Your task to perform on an android device: open sync settings in chrome Image 0: 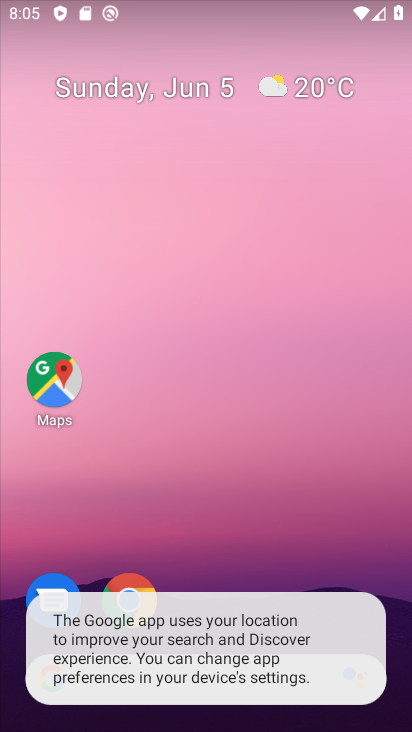
Step 0: press back button
Your task to perform on an android device: open sync settings in chrome Image 1: 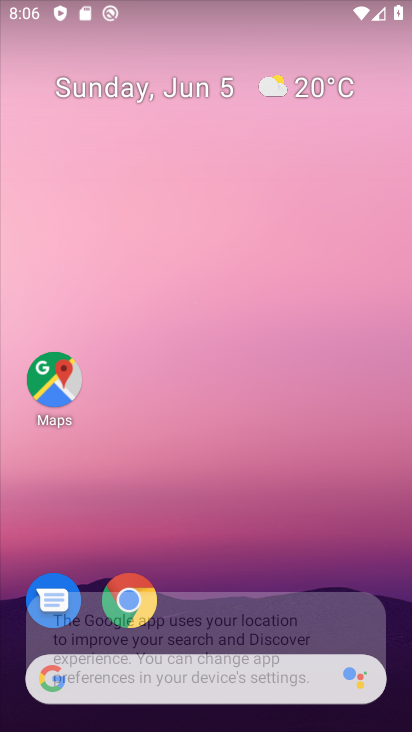
Step 1: press home button
Your task to perform on an android device: open sync settings in chrome Image 2: 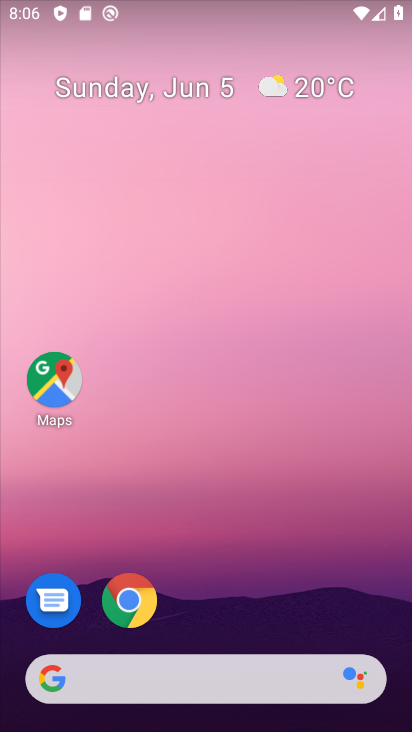
Step 2: drag from (392, 660) to (326, 122)
Your task to perform on an android device: open sync settings in chrome Image 3: 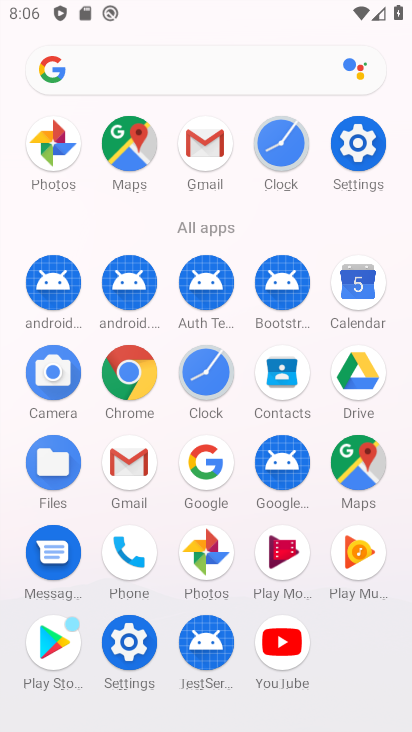
Step 3: click (129, 388)
Your task to perform on an android device: open sync settings in chrome Image 4: 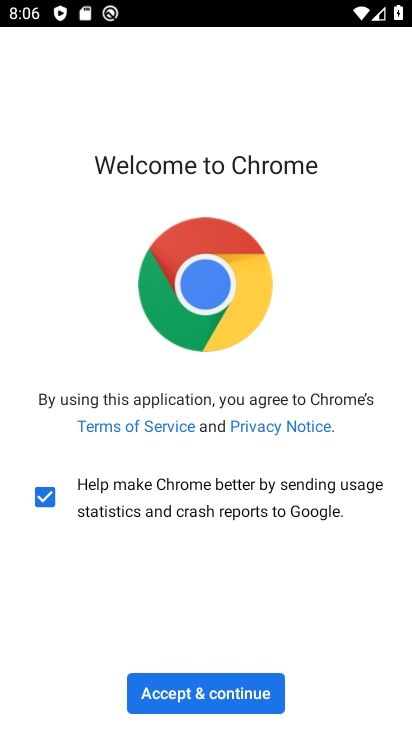
Step 4: click (214, 690)
Your task to perform on an android device: open sync settings in chrome Image 5: 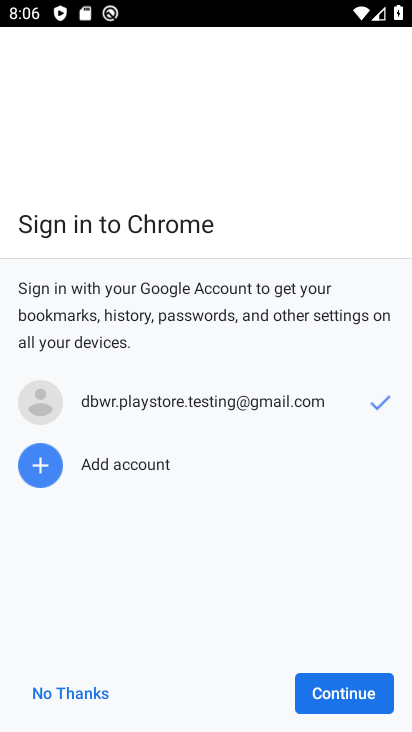
Step 5: click (318, 693)
Your task to perform on an android device: open sync settings in chrome Image 6: 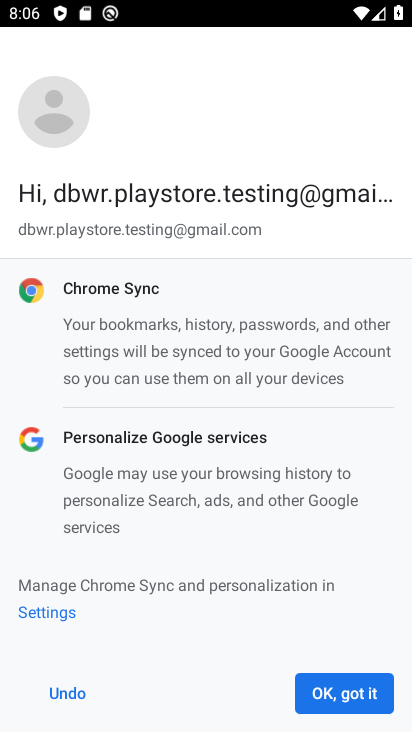
Step 6: click (318, 693)
Your task to perform on an android device: open sync settings in chrome Image 7: 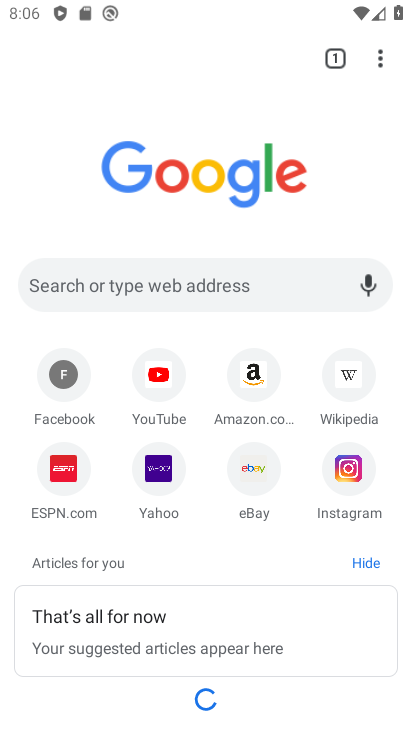
Step 7: click (380, 55)
Your task to perform on an android device: open sync settings in chrome Image 8: 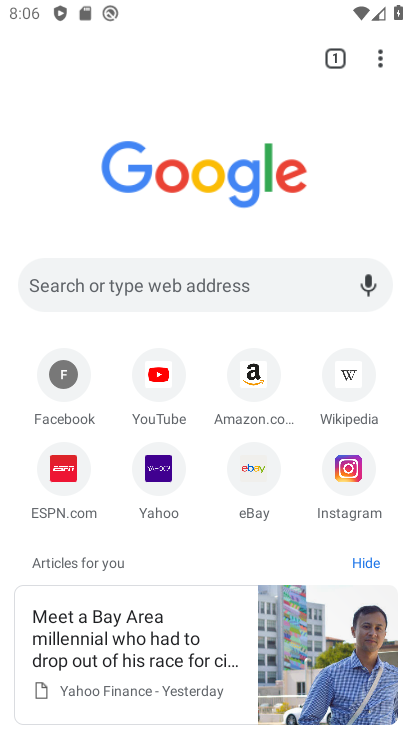
Step 8: click (380, 55)
Your task to perform on an android device: open sync settings in chrome Image 9: 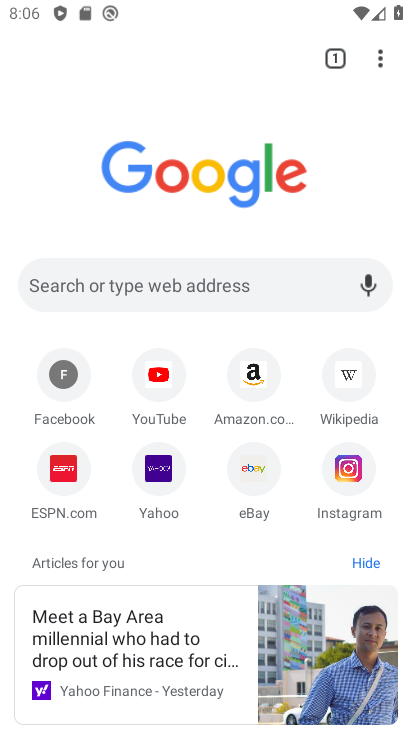
Step 9: click (380, 55)
Your task to perform on an android device: open sync settings in chrome Image 10: 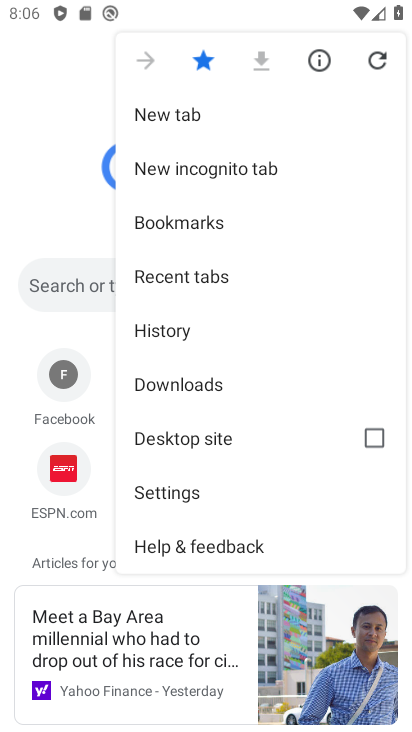
Step 10: click (216, 489)
Your task to perform on an android device: open sync settings in chrome Image 11: 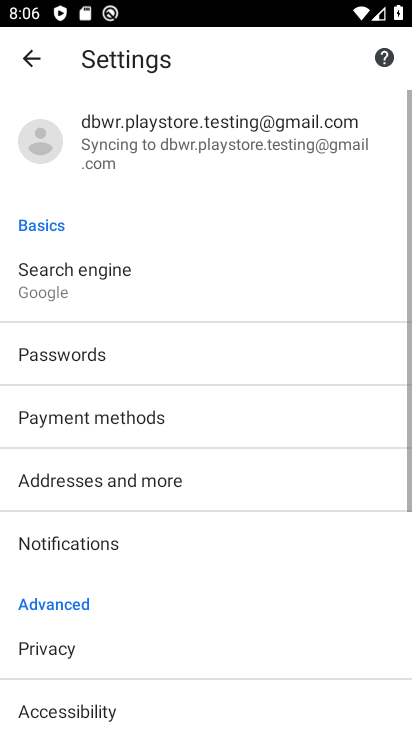
Step 11: drag from (99, 695) to (188, 159)
Your task to perform on an android device: open sync settings in chrome Image 12: 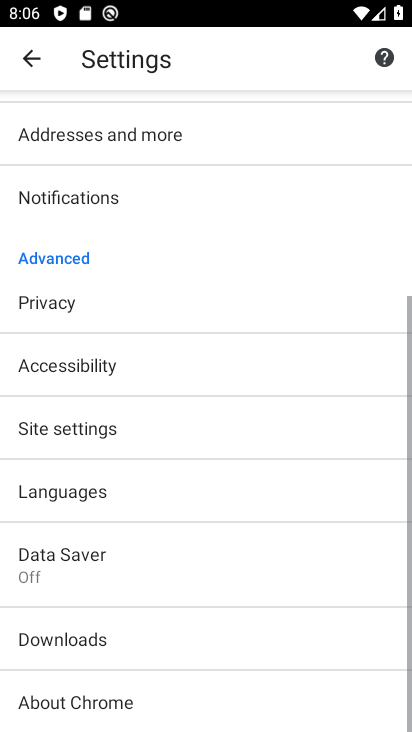
Step 12: click (105, 428)
Your task to perform on an android device: open sync settings in chrome Image 13: 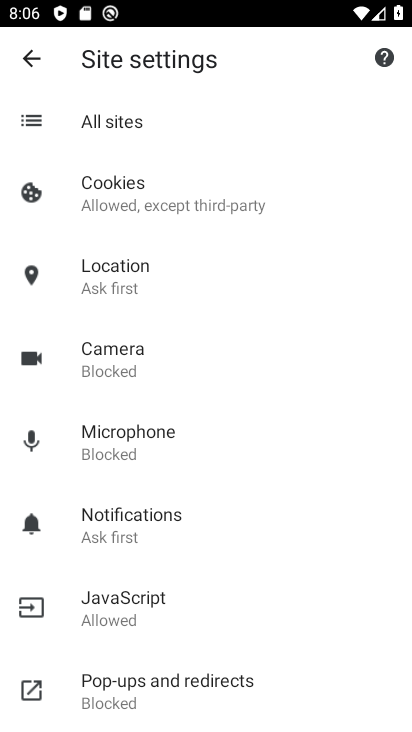
Step 13: drag from (230, 259) to (228, 208)
Your task to perform on an android device: open sync settings in chrome Image 14: 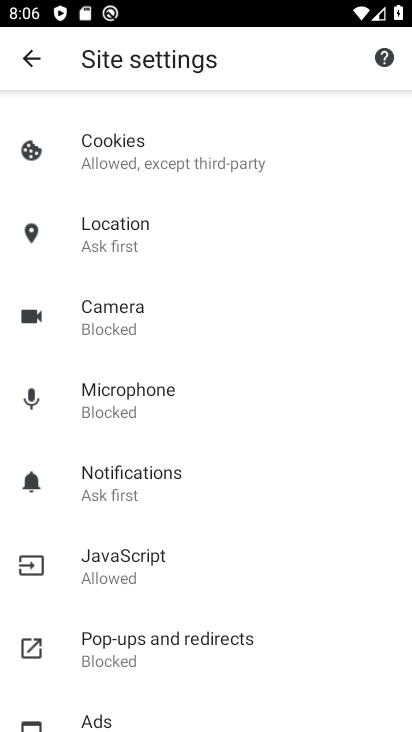
Step 14: drag from (135, 666) to (170, 157)
Your task to perform on an android device: open sync settings in chrome Image 15: 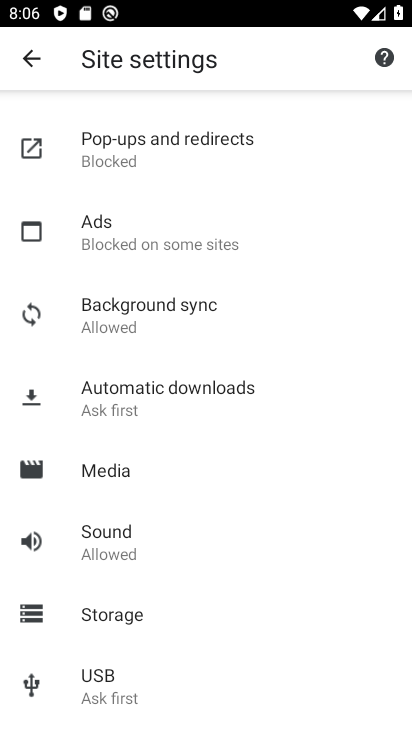
Step 15: click (164, 303)
Your task to perform on an android device: open sync settings in chrome Image 16: 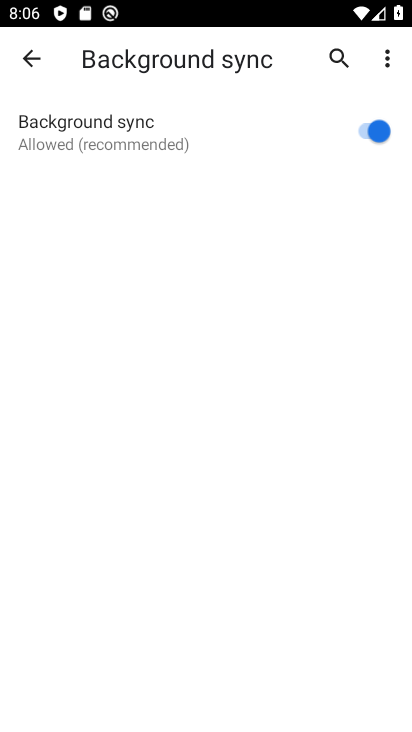
Step 16: task complete